Your task to perform on an android device: Search for sushi restaurants on Maps Image 0: 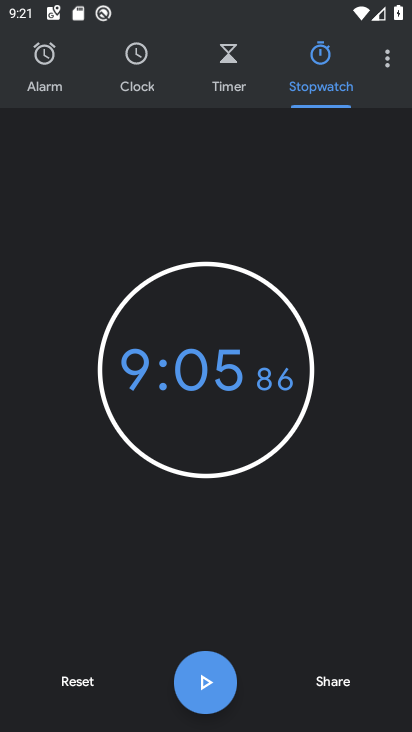
Step 0: click (85, 141)
Your task to perform on an android device: Search for sushi restaurants on Maps Image 1: 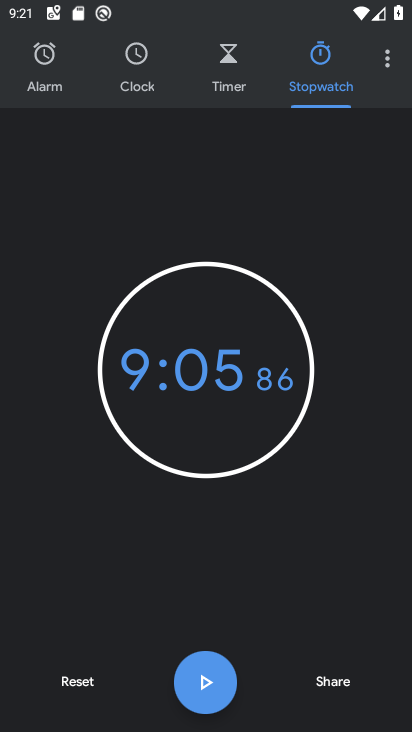
Step 1: press back button
Your task to perform on an android device: Search for sushi restaurants on Maps Image 2: 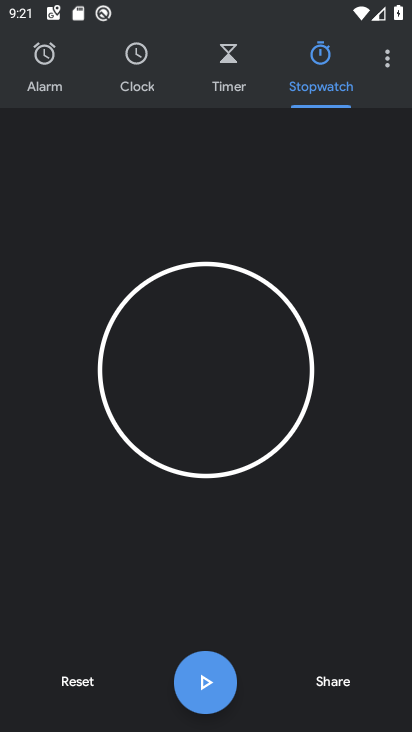
Step 2: press back button
Your task to perform on an android device: Search for sushi restaurants on Maps Image 3: 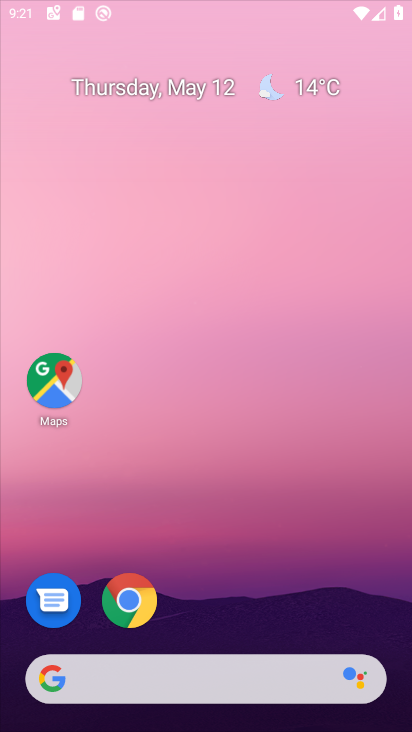
Step 3: press back button
Your task to perform on an android device: Search for sushi restaurants on Maps Image 4: 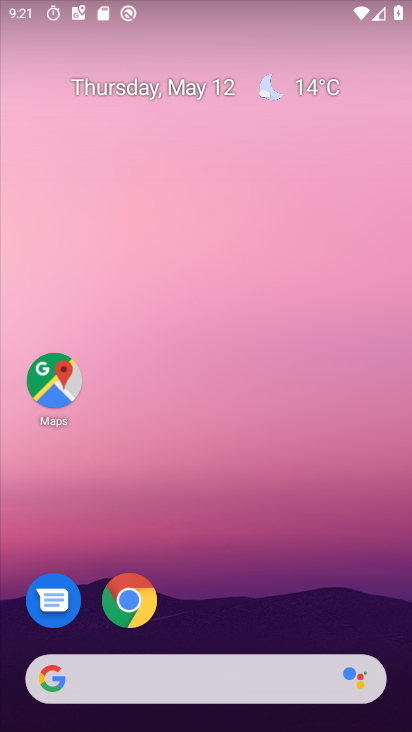
Step 4: drag from (295, 487) to (227, 4)
Your task to perform on an android device: Search for sushi restaurants on Maps Image 5: 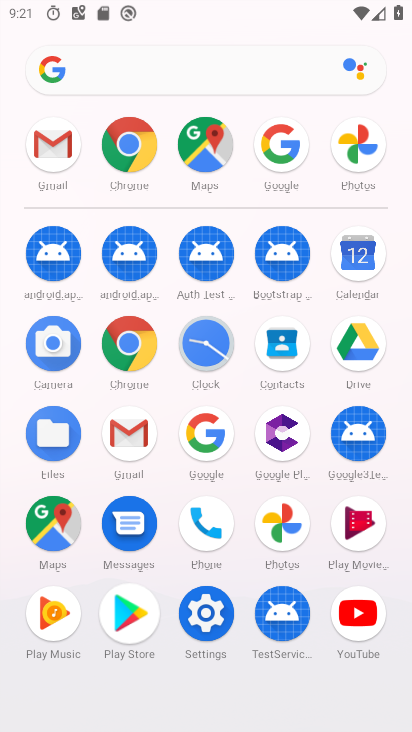
Step 5: click (193, 154)
Your task to perform on an android device: Search for sushi restaurants on Maps Image 6: 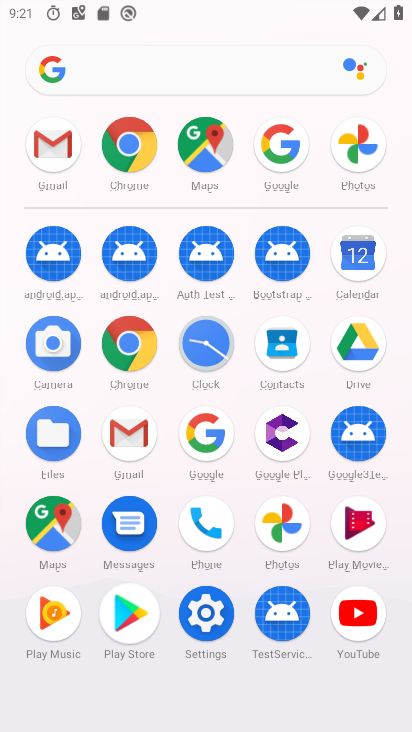
Step 6: click (199, 154)
Your task to perform on an android device: Search for sushi restaurants on Maps Image 7: 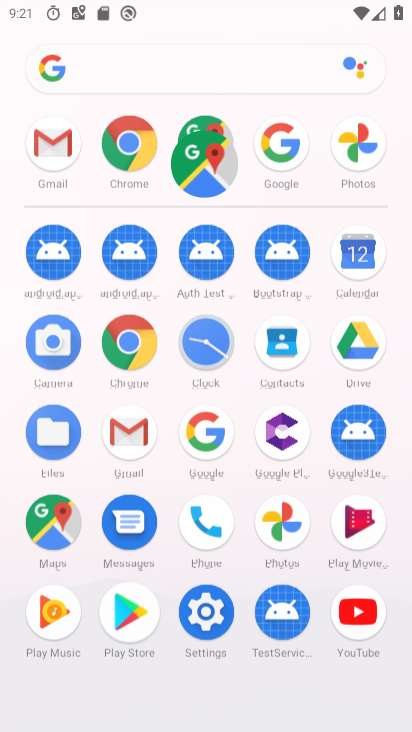
Step 7: click (199, 154)
Your task to perform on an android device: Search for sushi restaurants on Maps Image 8: 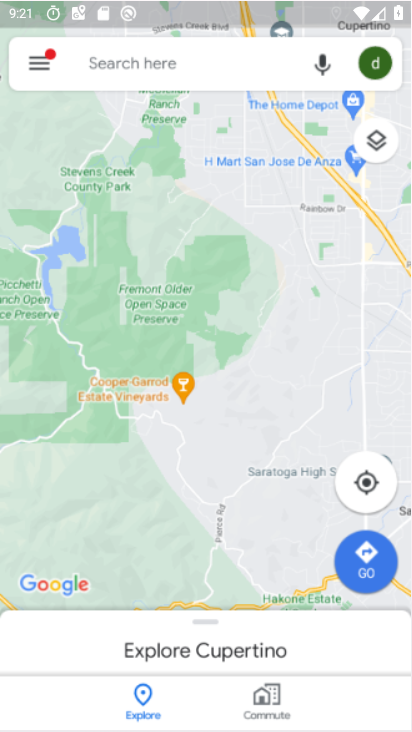
Step 8: click (200, 153)
Your task to perform on an android device: Search for sushi restaurants on Maps Image 9: 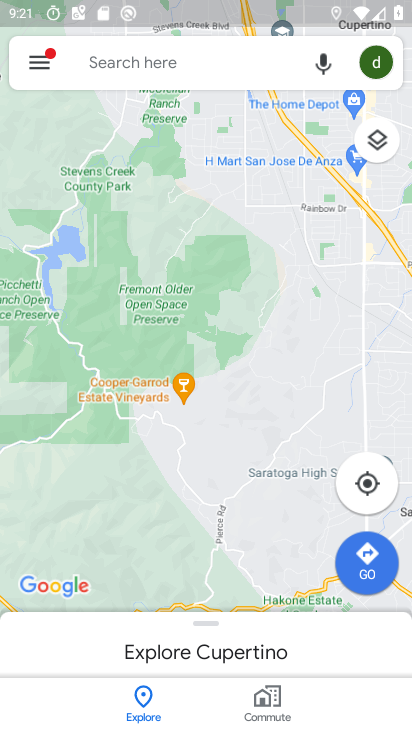
Step 9: click (98, 61)
Your task to perform on an android device: Search for sushi restaurants on Maps Image 10: 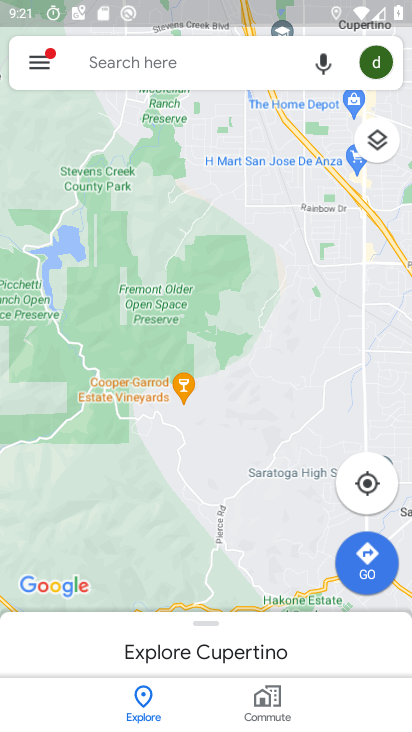
Step 10: click (96, 59)
Your task to perform on an android device: Search for sushi restaurants on Maps Image 11: 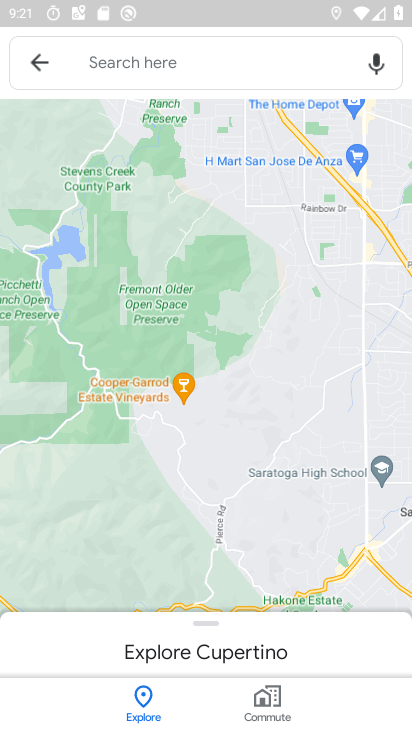
Step 11: click (96, 59)
Your task to perform on an android device: Search for sushi restaurants on Maps Image 12: 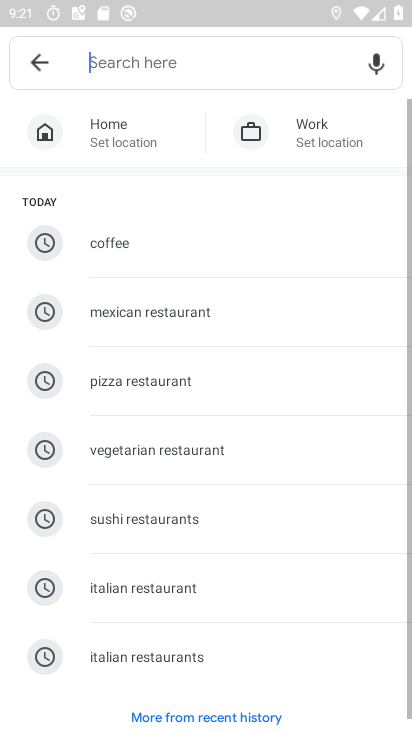
Step 12: click (96, 59)
Your task to perform on an android device: Search for sushi restaurants on Maps Image 13: 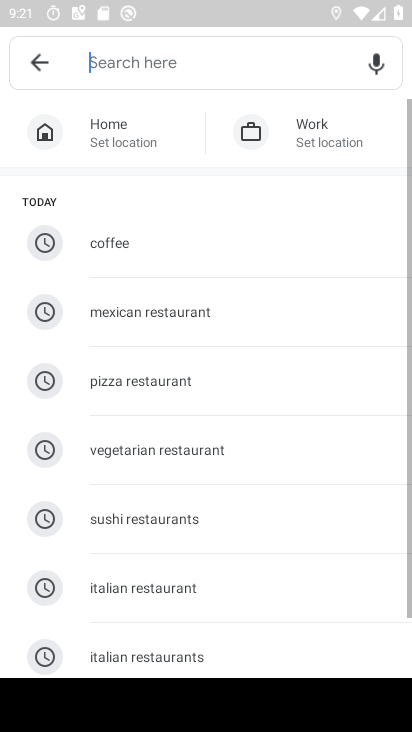
Step 13: click (96, 60)
Your task to perform on an android device: Search for sushi restaurants on Maps Image 14: 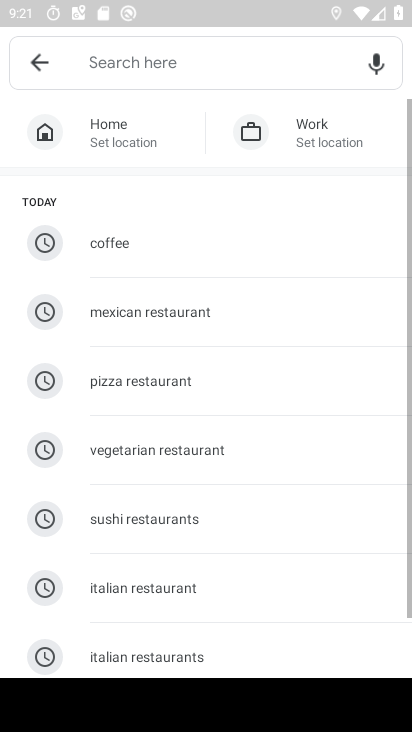
Step 14: click (96, 60)
Your task to perform on an android device: Search for sushi restaurants on Maps Image 15: 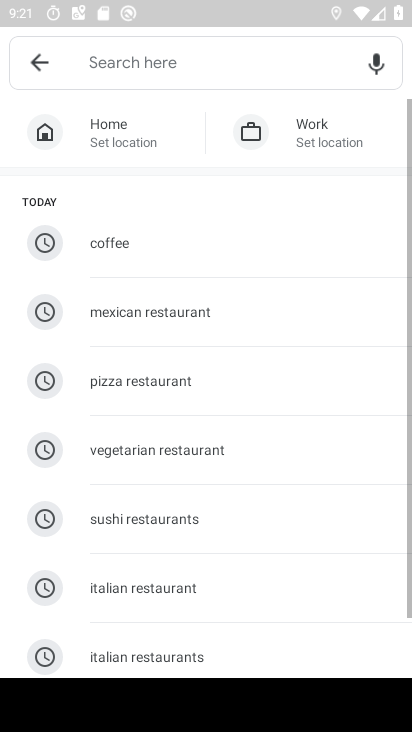
Step 15: click (96, 60)
Your task to perform on an android device: Search for sushi restaurants on Maps Image 16: 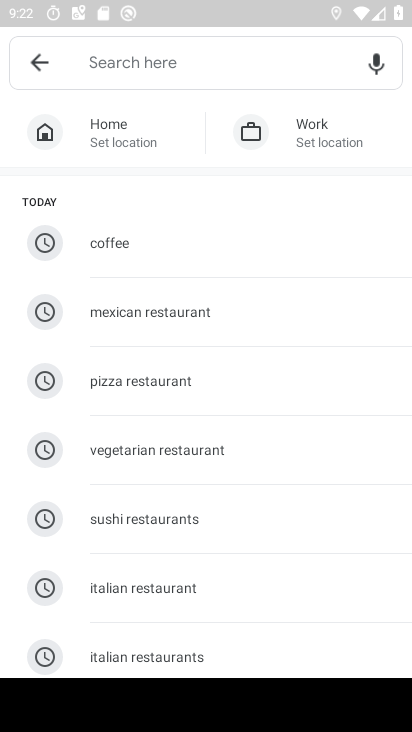
Step 16: click (143, 514)
Your task to perform on an android device: Search for sushi restaurants on Maps Image 17: 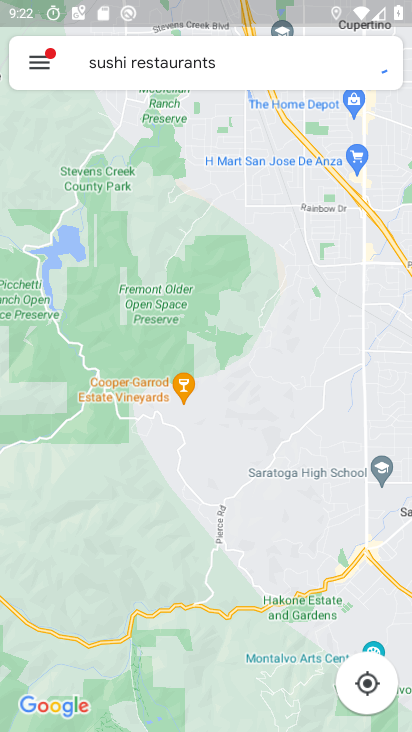
Step 17: click (145, 513)
Your task to perform on an android device: Search for sushi restaurants on Maps Image 18: 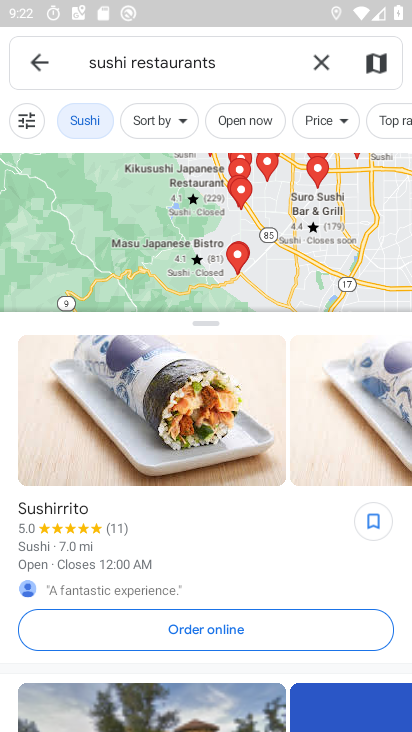
Step 18: task complete